Your task to perform on an android device: toggle improve location accuracy Image 0: 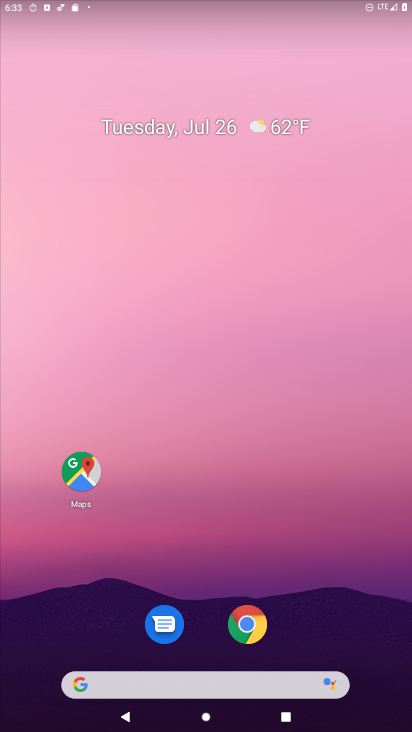
Step 0: drag from (198, 670) to (252, 0)
Your task to perform on an android device: toggle improve location accuracy Image 1: 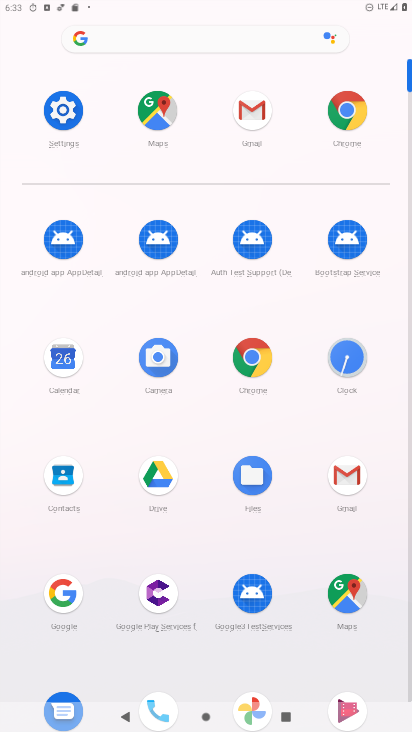
Step 1: click (66, 117)
Your task to perform on an android device: toggle improve location accuracy Image 2: 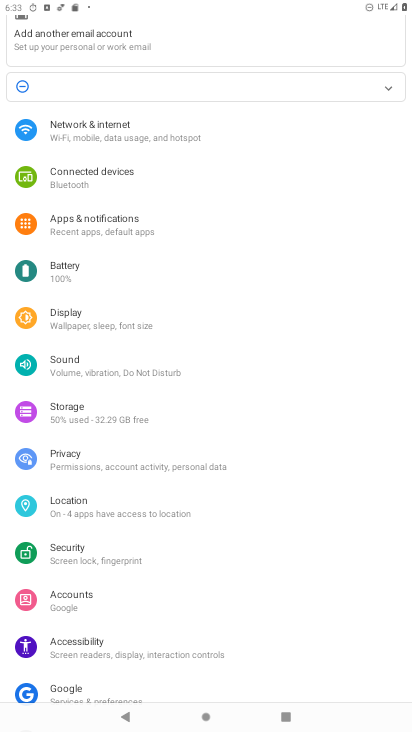
Step 2: click (94, 520)
Your task to perform on an android device: toggle improve location accuracy Image 3: 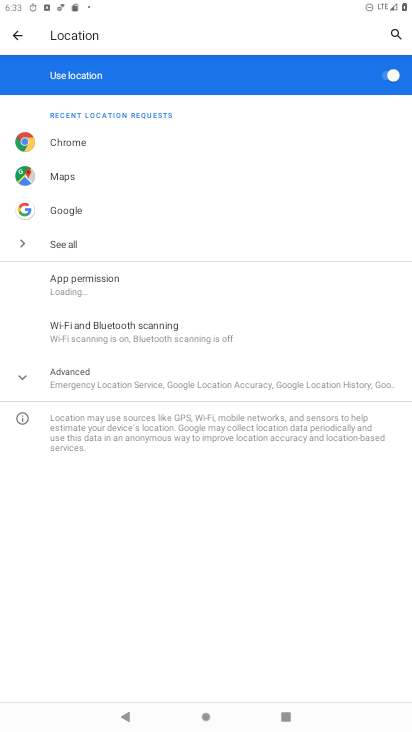
Step 3: click (135, 381)
Your task to perform on an android device: toggle improve location accuracy Image 4: 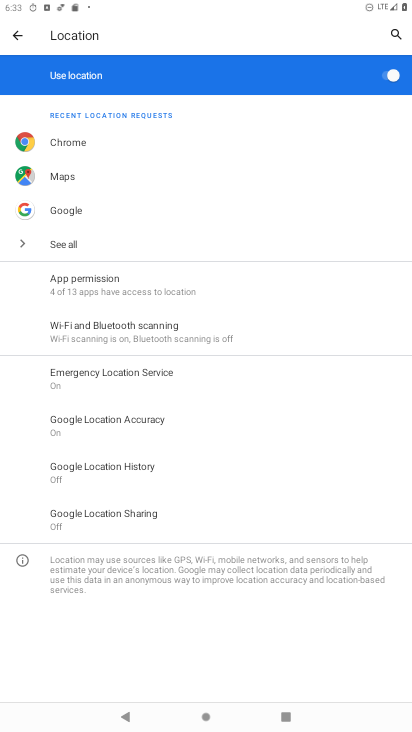
Step 4: click (154, 429)
Your task to perform on an android device: toggle improve location accuracy Image 5: 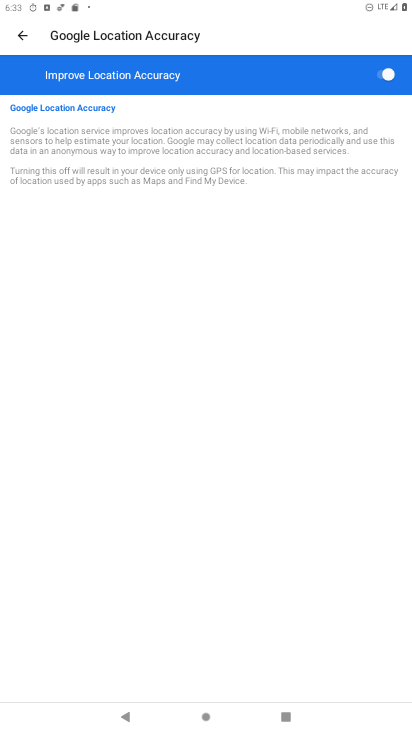
Step 5: click (389, 76)
Your task to perform on an android device: toggle improve location accuracy Image 6: 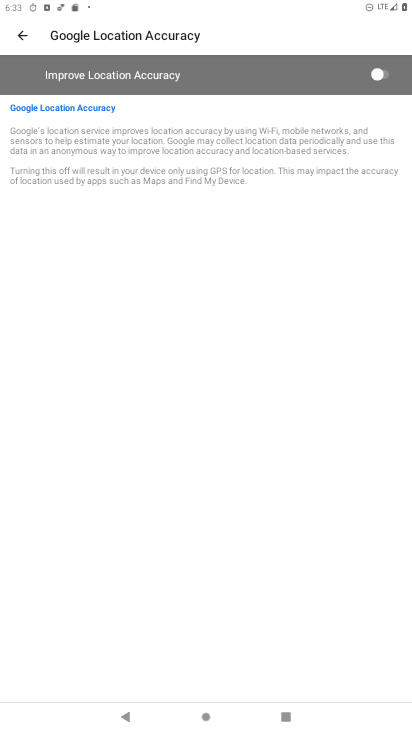
Step 6: task complete